Your task to perform on an android device: turn pop-ups off in chrome Image 0: 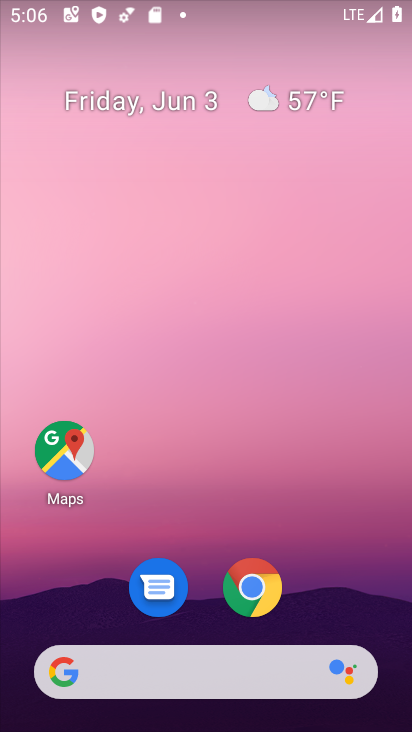
Step 0: click (251, 591)
Your task to perform on an android device: turn pop-ups off in chrome Image 1: 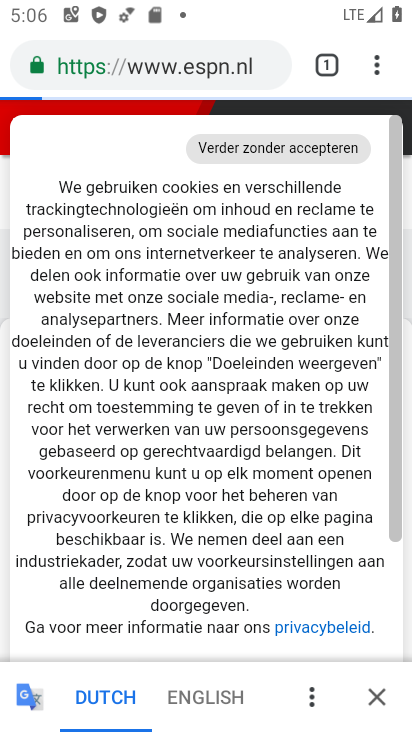
Step 1: click (372, 74)
Your task to perform on an android device: turn pop-ups off in chrome Image 2: 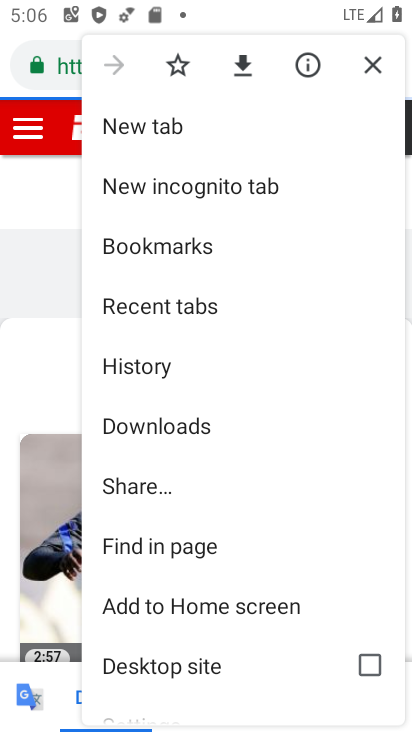
Step 2: drag from (177, 581) to (171, 317)
Your task to perform on an android device: turn pop-ups off in chrome Image 3: 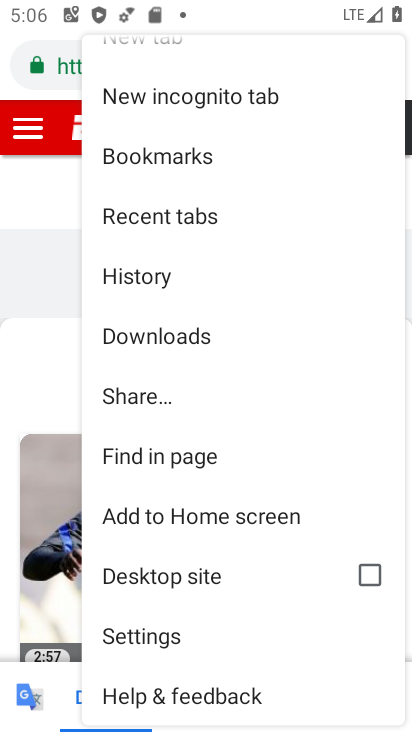
Step 3: click (125, 640)
Your task to perform on an android device: turn pop-ups off in chrome Image 4: 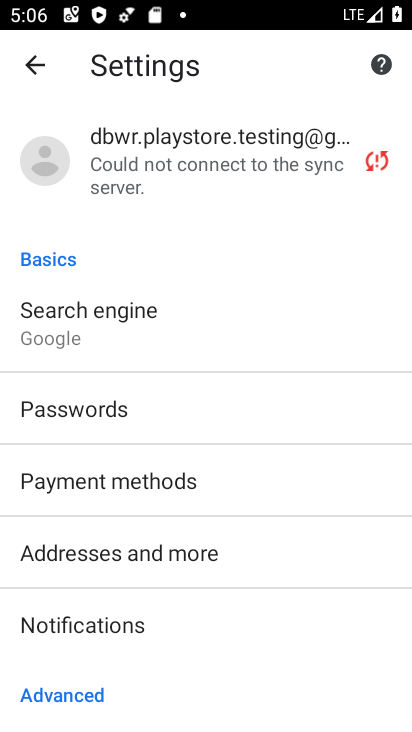
Step 4: drag from (125, 640) to (158, 153)
Your task to perform on an android device: turn pop-ups off in chrome Image 5: 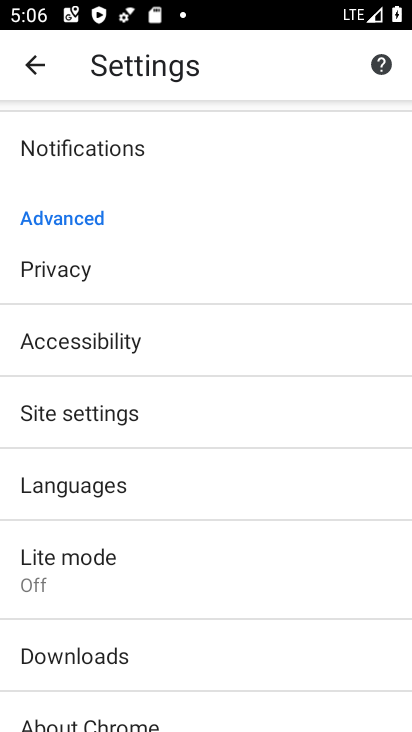
Step 5: click (80, 408)
Your task to perform on an android device: turn pop-ups off in chrome Image 6: 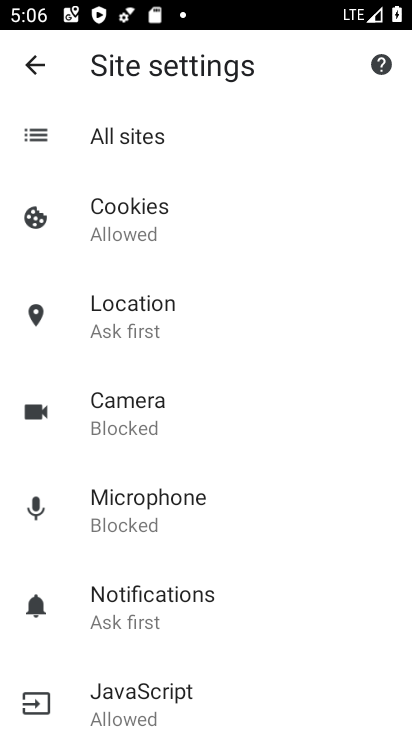
Step 6: drag from (184, 712) to (158, 340)
Your task to perform on an android device: turn pop-ups off in chrome Image 7: 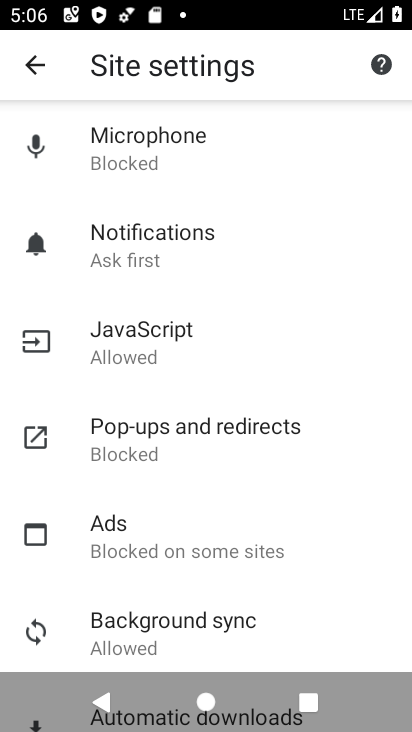
Step 7: click (119, 451)
Your task to perform on an android device: turn pop-ups off in chrome Image 8: 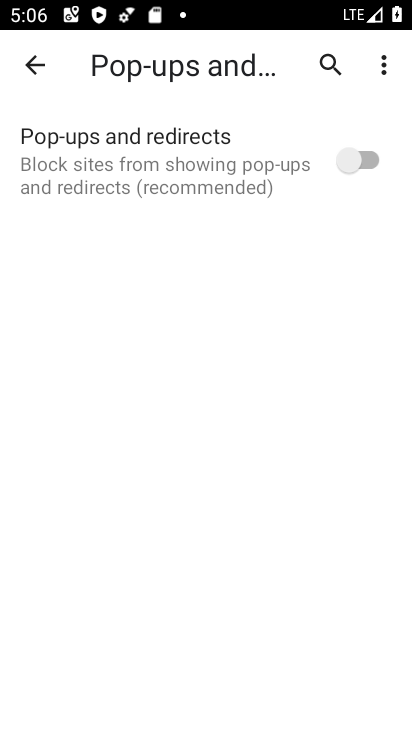
Step 8: task complete